Your task to perform on an android device: turn on wifi Image 0: 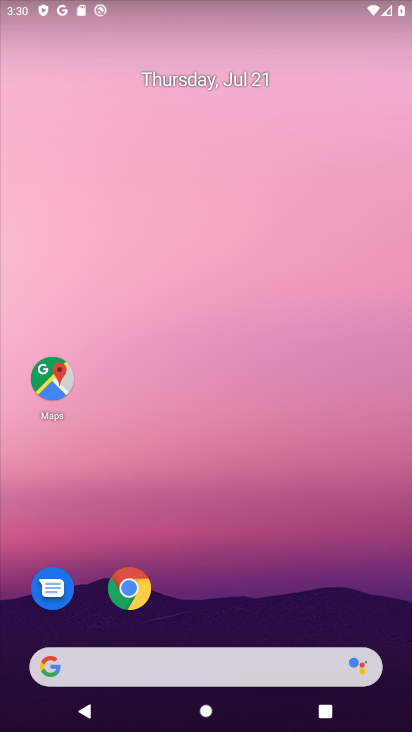
Step 0: drag from (226, 725) to (228, 202)
Your task to perform on an android device: turn on wifi Image 1: 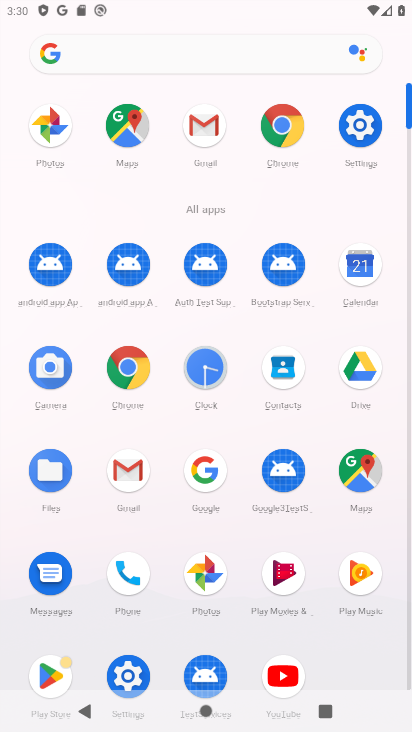
Step 1: click (366, 127)
Your task to perform on an android device: turn on wifi Image 2: 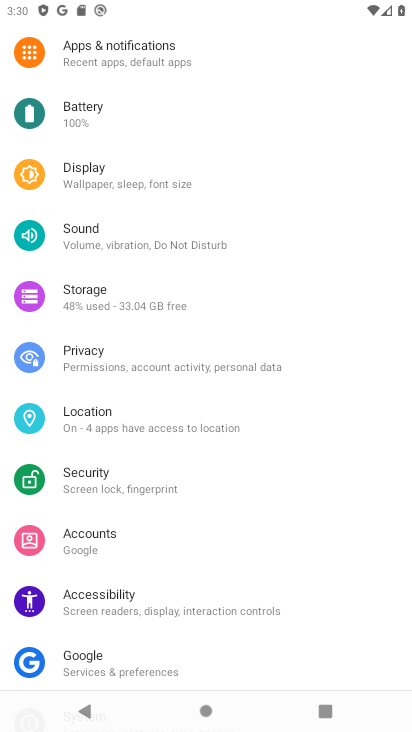
Step 2: drag from (138, 214) to (174, 676)
Your task to perform on an android device: turn on wifi Image 3: 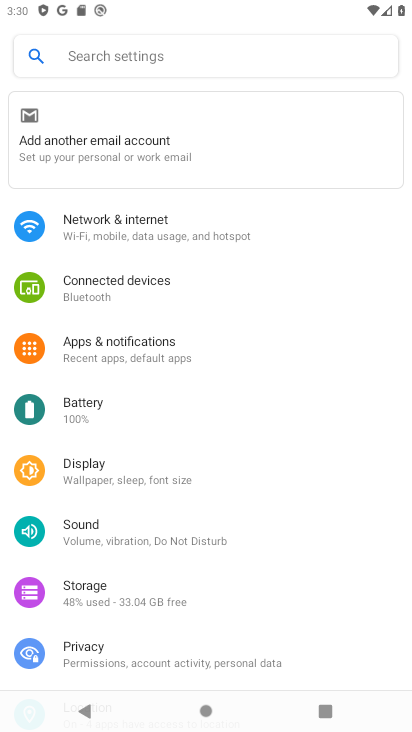
Step 3: click (124, 224)
Your task to perform on an android device: turn on wifi Image 4: 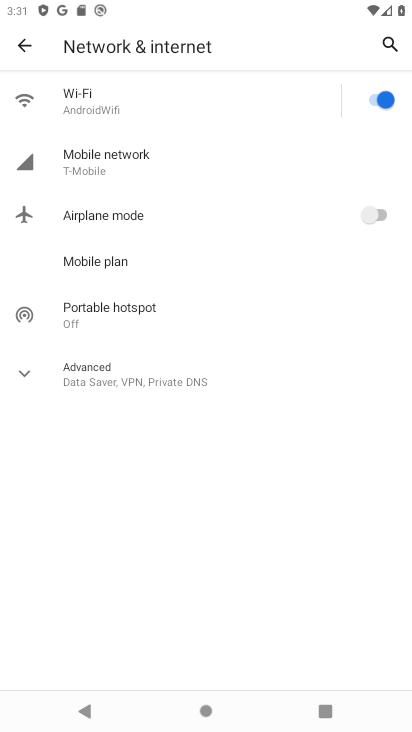
Step 4: task complete